Your task to perform on an android device: find photos in the google photos app Image 0: 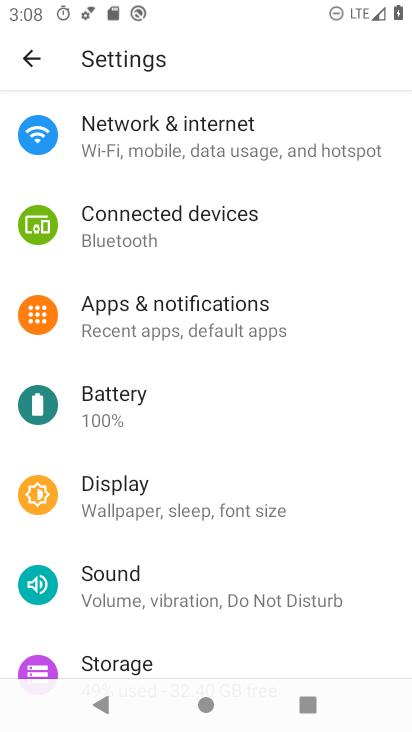
Step 0: press home button
Your task to perform on an android device: find photos in the google photos app Image 1: 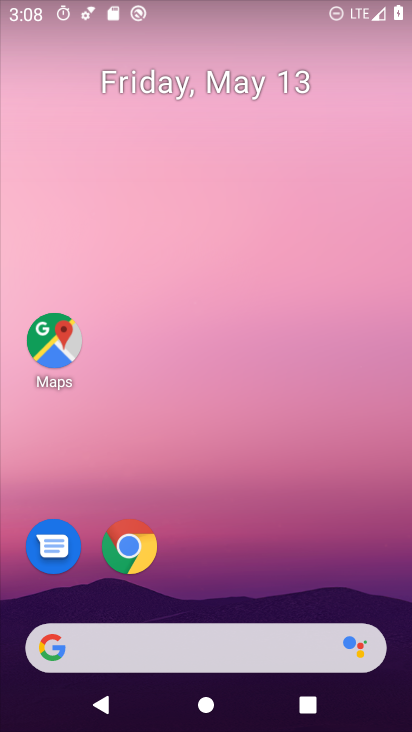
Step 1: drag from (368, 607) to (285, 124)
Your task to perform on an android device: find photos in the google photos app Image 2: 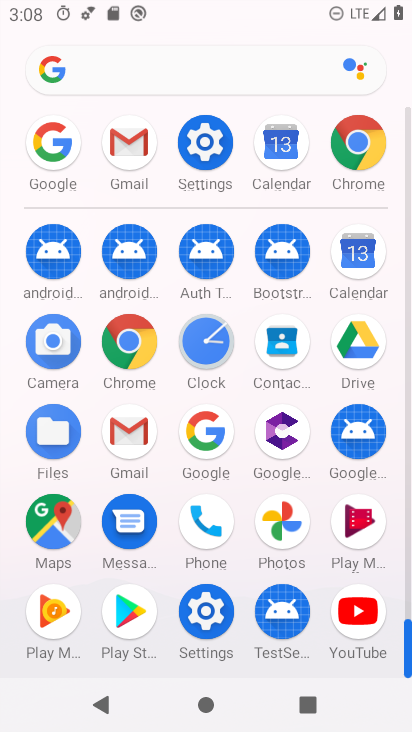
Step 2: click (296, 526)
Your task to perform on an android device: find photos in the google photos app Image 3: 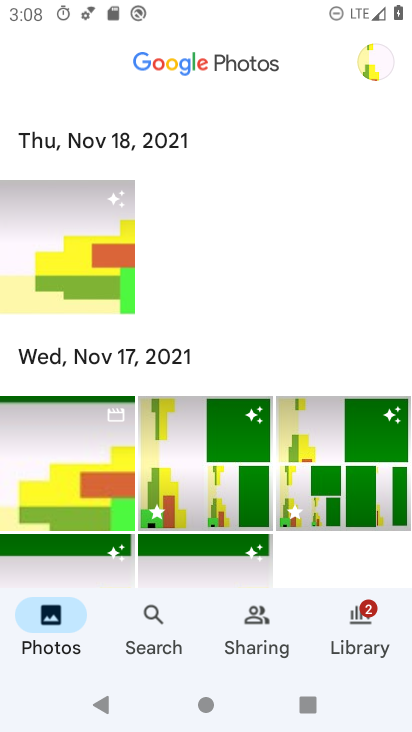
Step 3: task complete